Your task to perform on an android device: Search for Mexican restaurants on Maps Image 0: 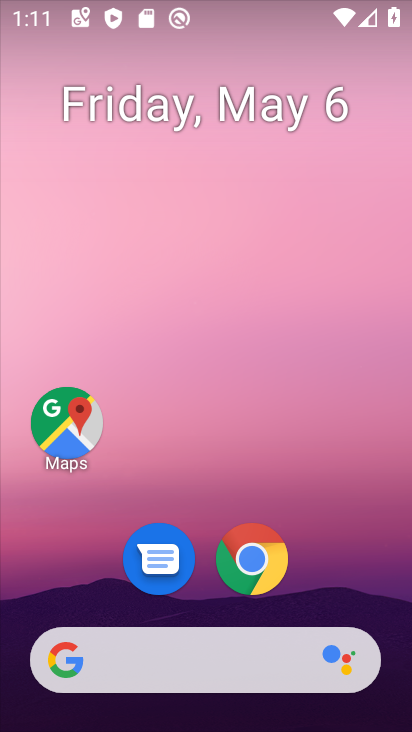
Step 0: drag from (207, 614) to (380, 34)
Your task to perform on an android device: Search for Mexican restaurants on Maps Image 1: 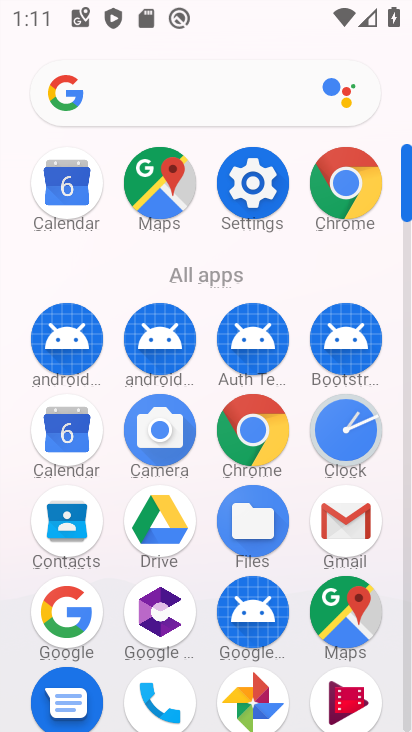
Step 1: click (166, 198)
Your task to perform on an android device: Search for Mexican restaurants on Maps Image 2: 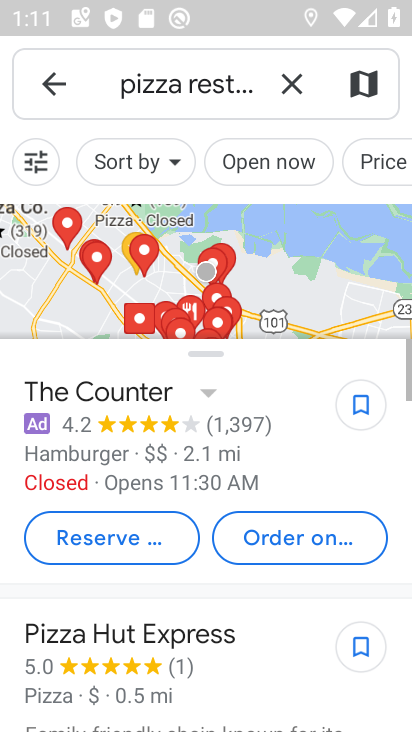
Step 2: click (294, 79)
Your task to perform on an android device: Search for Mexican restaurants on Maps Image 3: 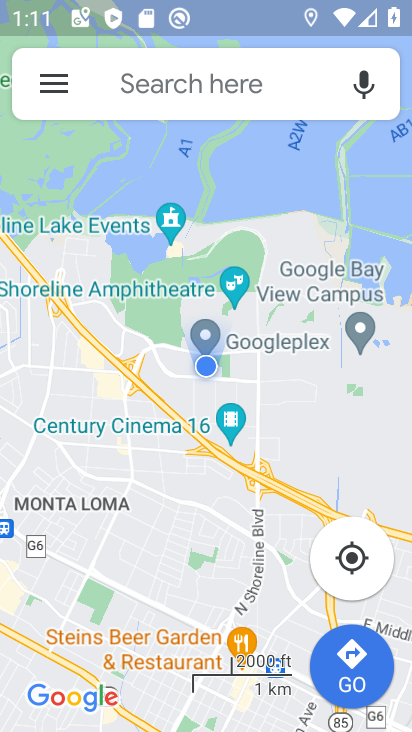
Step 3: click (186, 82)
Your task to perform on an android device: Search for Mexican restaurants on Maps Image 4: 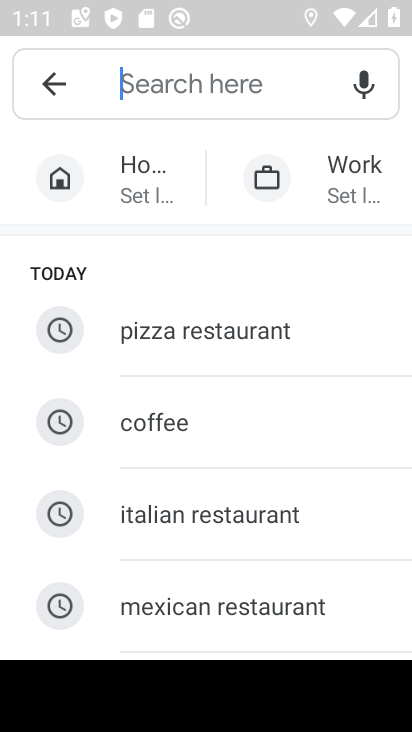
Step 4: click (216, 602)
Your task to perform on an android device: Search for Mexican restaurants on Maps Image 5: 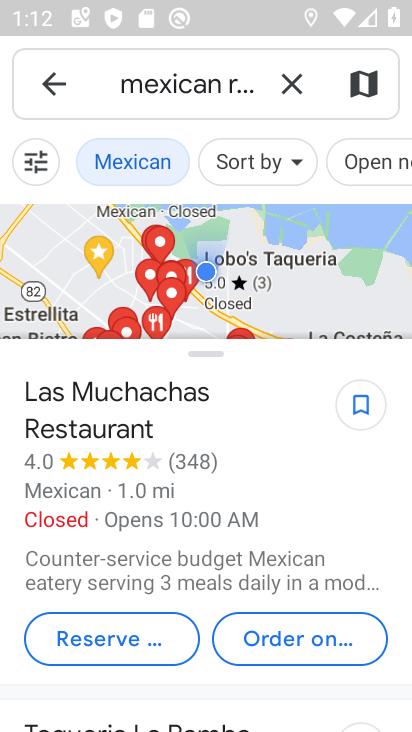
Step 5: task complete